Your task to perform on an android device: open app "Lyft - Rideshare, Bikes, Scooters & Transit" (install if not already installed) Image 0: 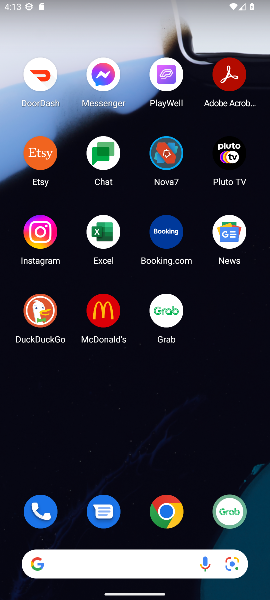
Step 0: drag from (132, 540) to (129, 283)
Your task to perform on an android device: open app "Lyft - Rideshare, Bikes, Scooters & Transit" (install if not already installed) Image 1: 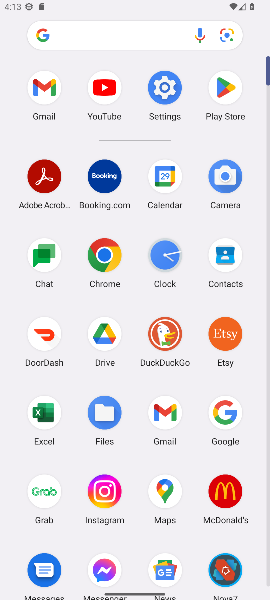
Step 1: drag from (207, 536) to (103, 234)
Your task to perform on an android device: open app "Lyft - Rideshare, Bikes, Scooters & Transit" (install if not already installed) Image 2: 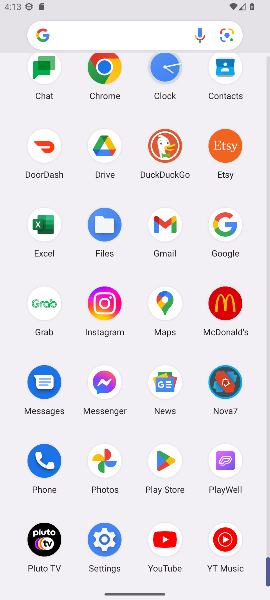
Step 2: click (144, 471)
Your task to perform on an android device: open app "Lyft - Rideshare, Bikes, Scooters & Transit" (install if not already installed) Image 3: 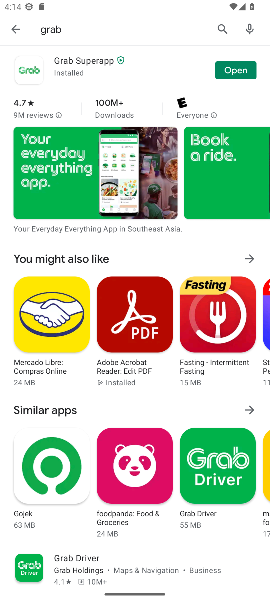
Step 3: click (9, 26)
Your task to perform on an android device: open app "Lyft - Rideshare, Bikes, Scooters & Transit" (install if not already installed) Image 4: 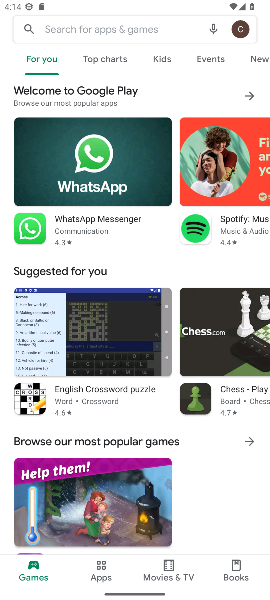
Step 4: click (90, 31)
Your task to perform on an android device: open app "Lyft - Rideshare, Bikes, Scooters & Transit" (install if not already installed) Image 5: 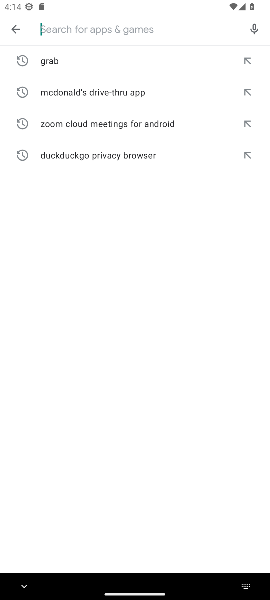
Step 5: type "Lyft - Rideshare, Bikes, Scooters & Transit"
Your task to perform on an android device: open app "Lyft - Rideshare, Bikes, Scooters & Transit" (install if not already installed) Image 6: 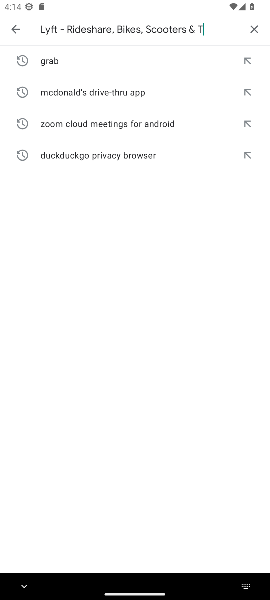
Step 6: type ""
Your task to perform on an android device: open app "Lyft - Rideshare, Bikes, Scooters & Transit" (install if not already installed) Image 7: 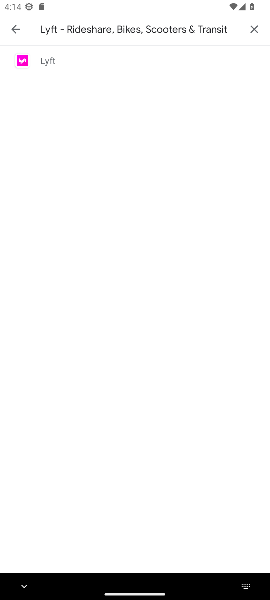
Step 7: click (35, 66)
Your task to perform on an android device: open app "Lyft - Rideshare, Bikes, Scooters & Transit" (install if not already installed) Image 8: 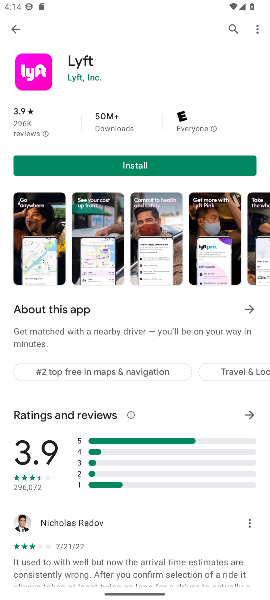
Step 8: click (169, 157)
Your task to perform on an android device: open app "Lyft - Rideshare, Bikes, Scooters & Transit" (install if not already installed) Image 9: 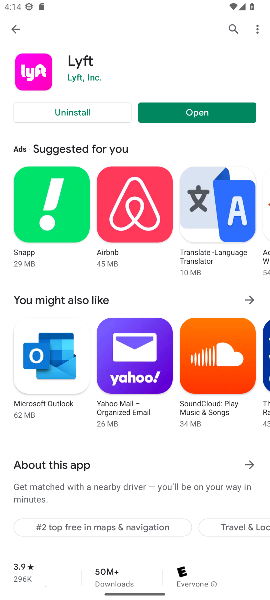
Step 9: task complete